Your task to perform on an android device: Open calendar and show me the fourth week of next month Image 0: 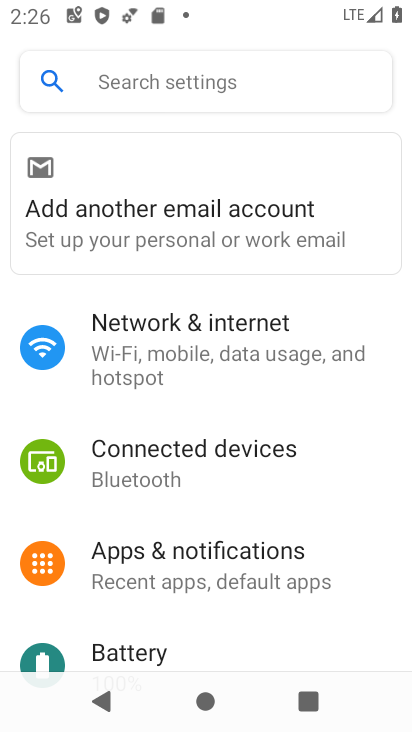
Step 0: press home button
Your task to perform on an android device: Open calendar and show me the fourth week of next month Image 1: 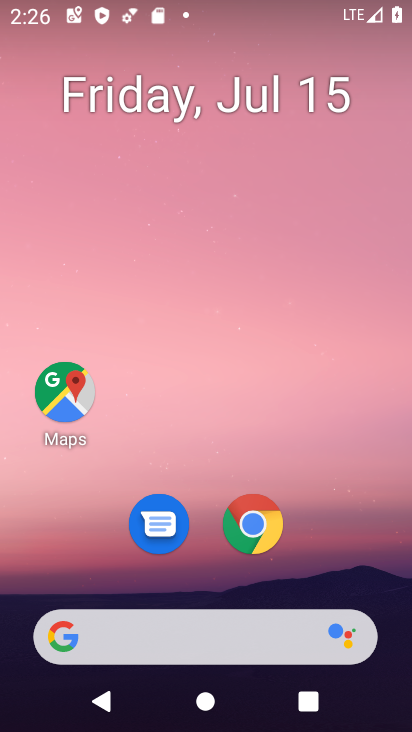
Step 1: drag from (240, 632) to (273, 315)
Your task to perform on an android device: Open calendar and show me the fourth week of next month Image 2: 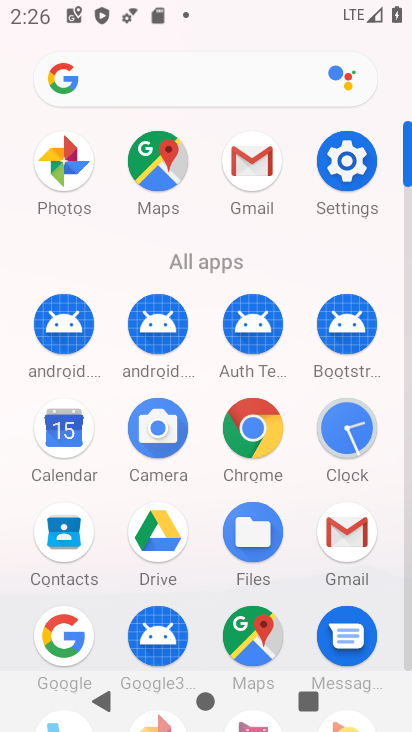
Step 2: click (71, 437)
Your task to perform on an android device: Open calendar and show me the fourth week of next month Image 3: 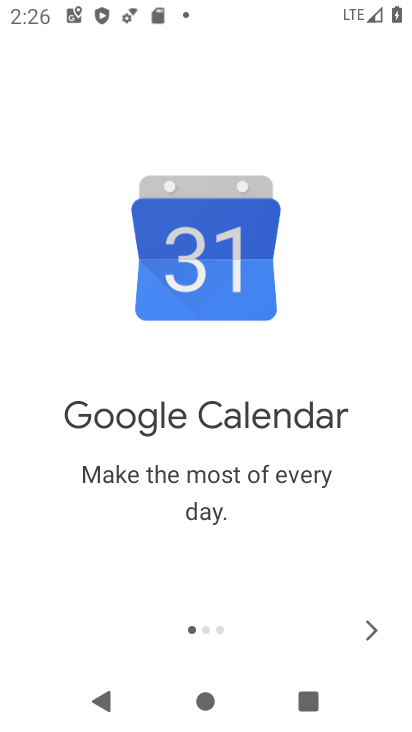
Step 3: click (367, 633)
Your task to perform on an android device: Open calendar and show me the fourth week of next month Image 4: 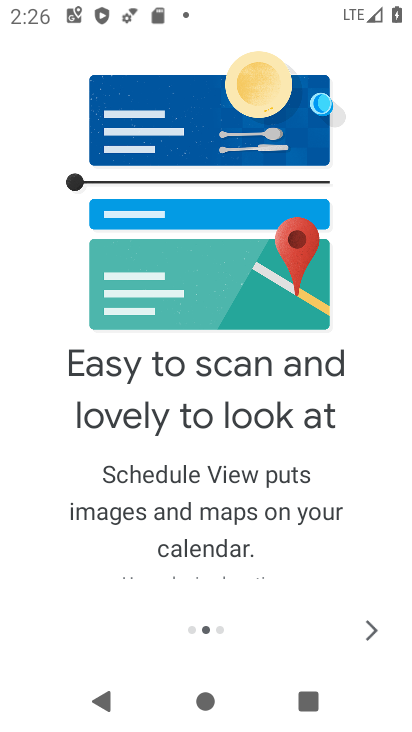
Step 4: click (367, 633)
Your task to perform on an android device: Open calendar and show me the fourth week of next month Image 5: 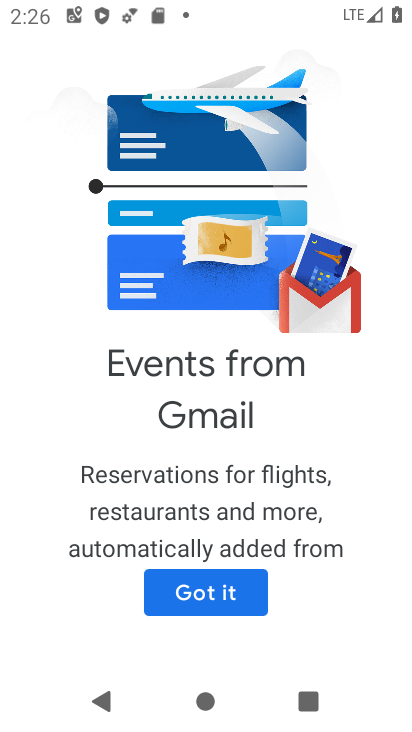
Step 5: click (227, 577)
Your task to perform on an android device: Open calendar and show me the fourth week of next month Image 6: 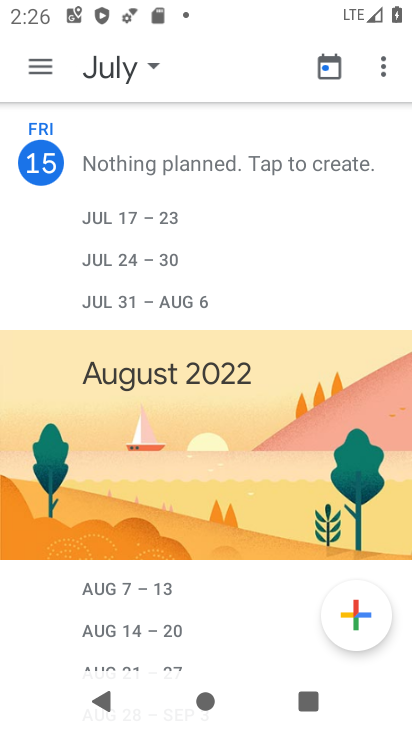
Step 6: click (126, 74)
Your task to perform on an android device: Open calendar and show me the fourth week of next month Image 7: 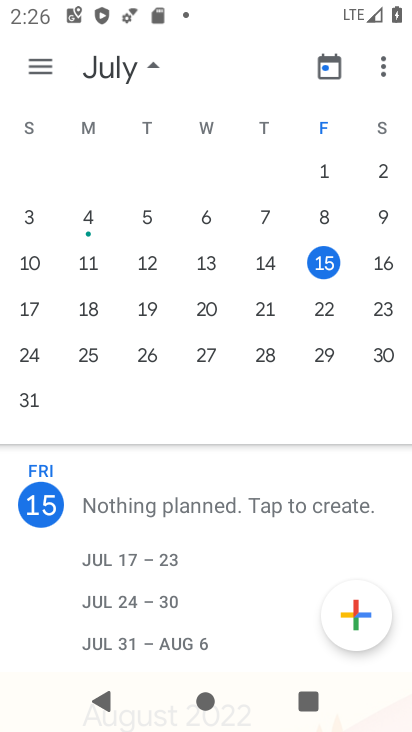
Step 7: drag from (337, 227) to (0, 188)
Your task to perform on an android device: Open calendar and show me the fourth week of next month Image 8: 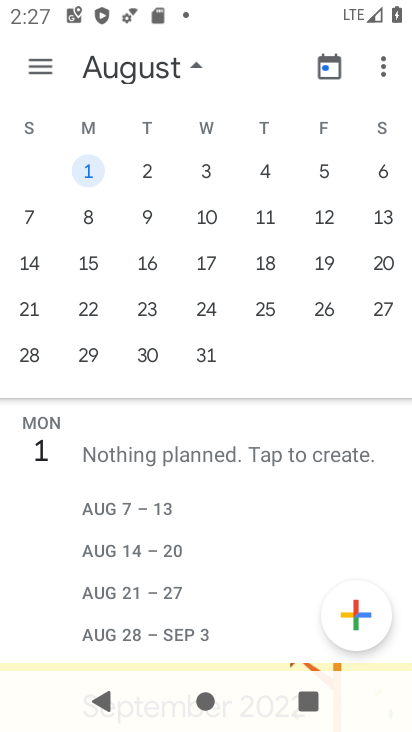
Step 8: click (29, 305)
Your task to perform on an android device: Open calendar and show me the fourth week of next month Image 9: 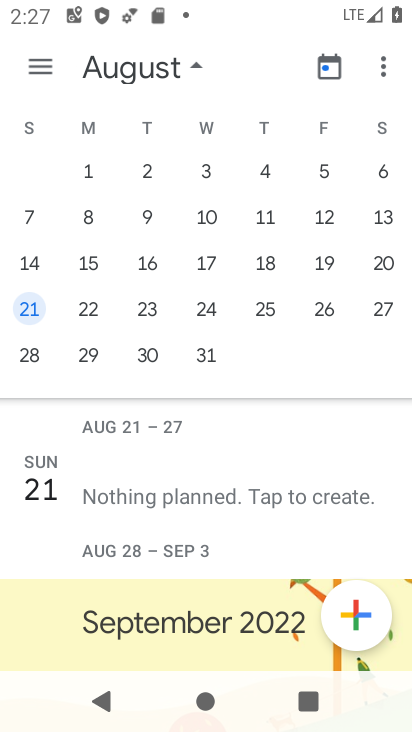
Step 9: click (32, 73)
Your task to perform on an android device: Open calendar and show me the fourth week of next month Image 10: 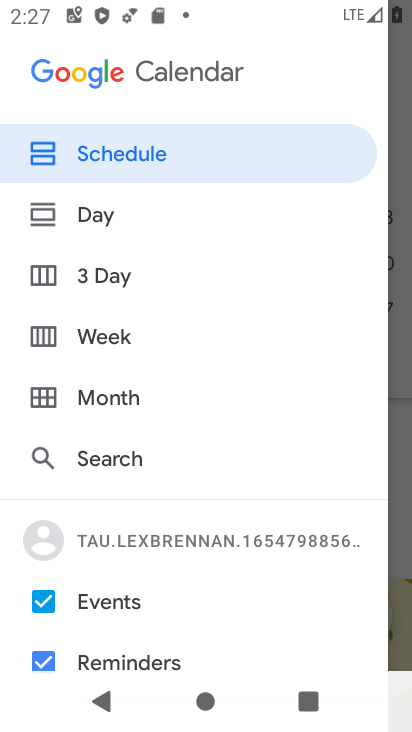
Step 10: click (108, 335)
Your task to perform on an android device: Open calendar and show me the fourth week of next month Image 11: 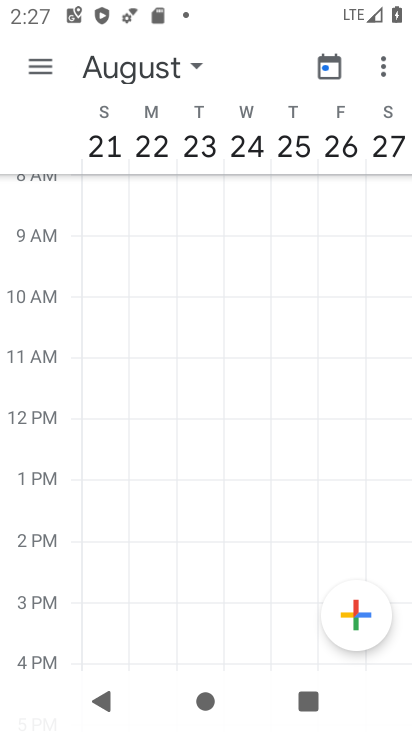
Step 11: task complete